Your task to perform on an android device: delete browsing data in the chrome app Image 0: 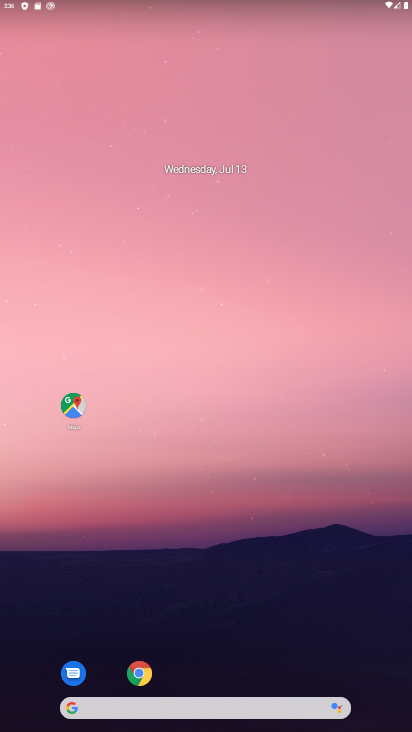
Step 0: click (138, 679)
Your task to perform on an android device: delete browsing data in the chrome app Image 1: 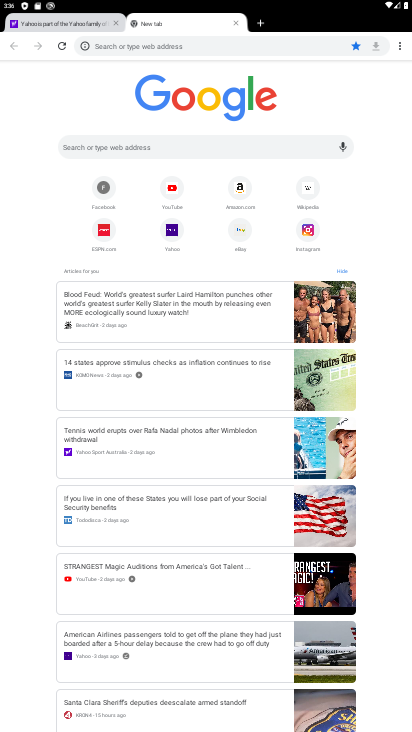
Step 1: click (397, 46)
Your task to perform on an android device: delete browsing data in the chrome app Image 2: 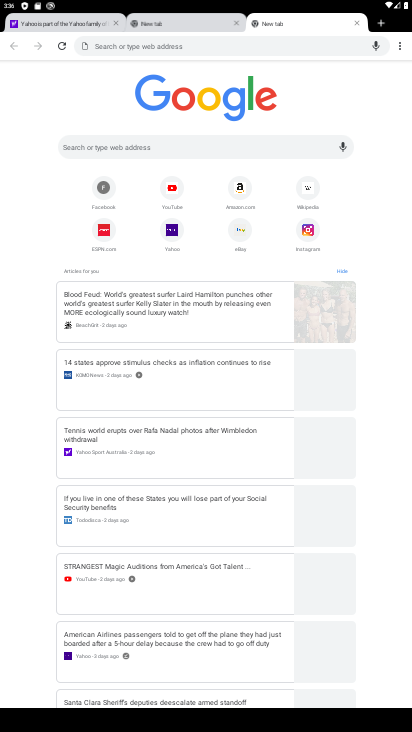
Step 2: click (397, 46)
Your task to perform on an android device: delete browsing data in the chrome app Image 3: 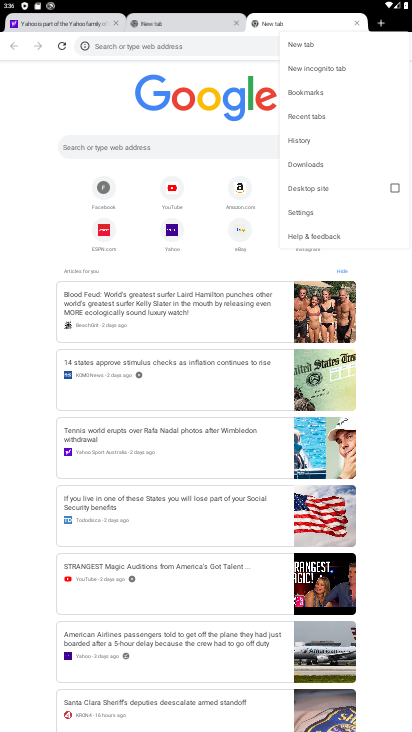
Step 3: click (307, 141)
Your task to perform on an android device: delete browsing data in the chrome app Image 4: 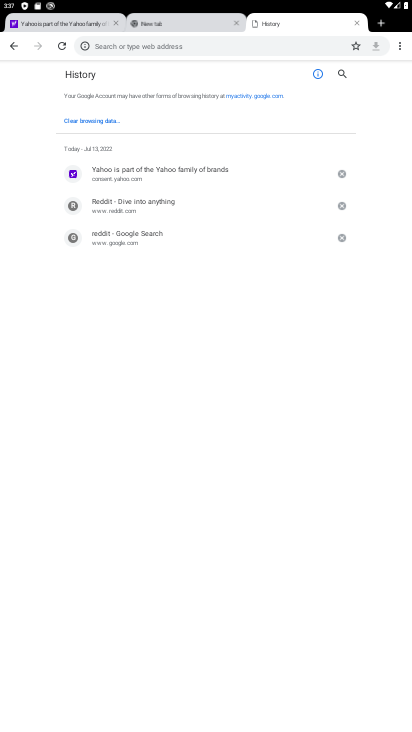
Step 4: click (86, 121)
Your task to perform on an android device: delete browsing data in the chrome app Image 5: 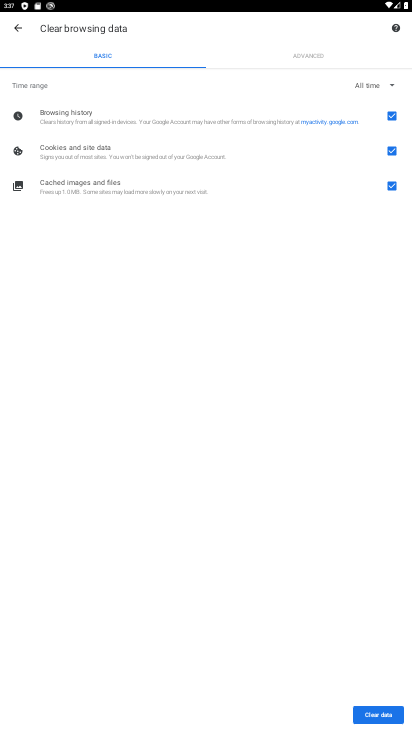
Step 5: click (389, 717)
Your task to perform on an android device: delete browsing data in the chrome app Image 6: 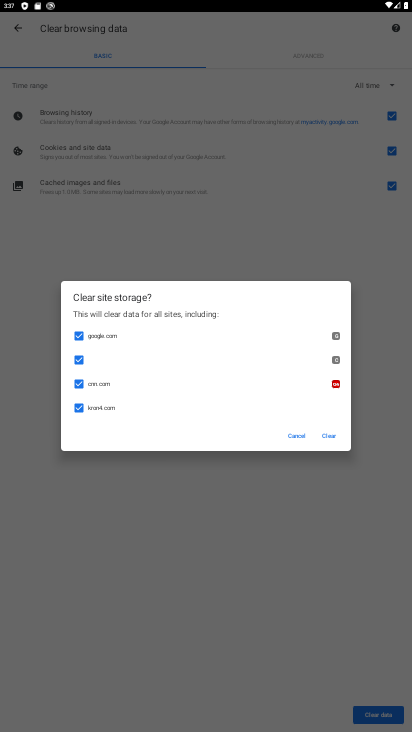
Step 6: click (331, 441)
Your task to perform on an android device: delete browsing data in the chrome app Image 7: 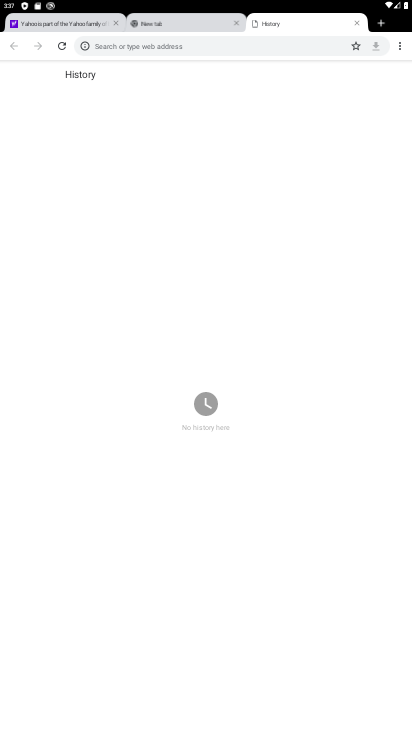
Step 7: task complete